Your task to perform on an android device: check data usage Image 0: 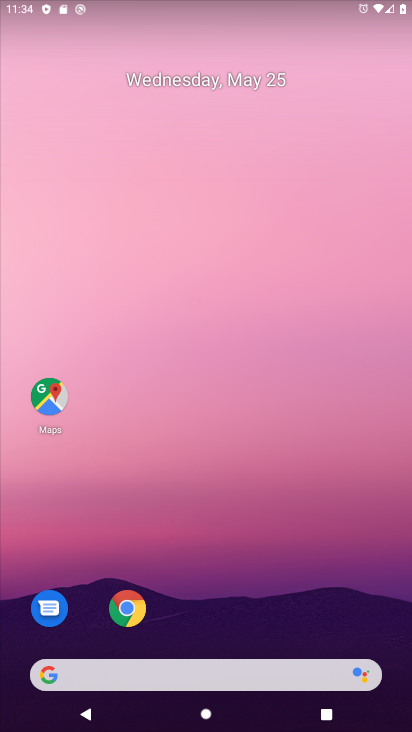
Step 0: drag from (218, 728) to (228, 160)
Your task to perform on an android device: check data usage Image 1: 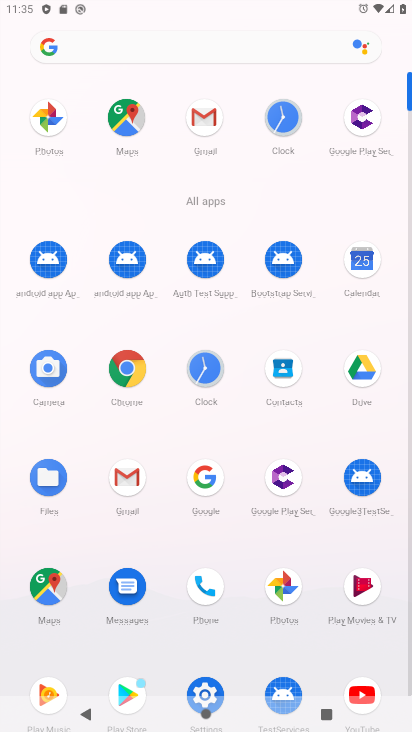
Step 1: click (208, 690)
Your task to perform on an android device: check data usage Image 2: 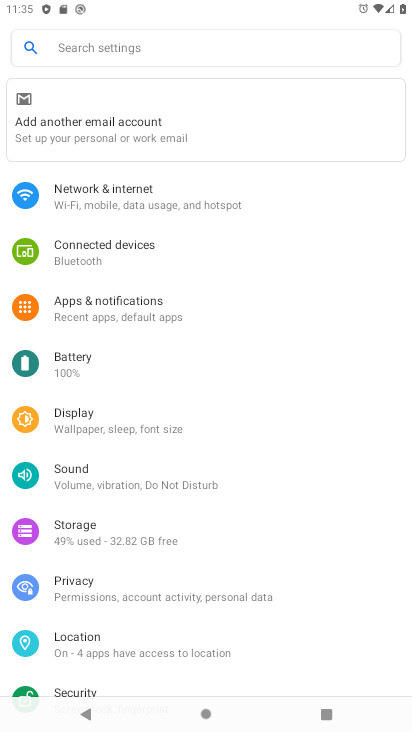
Step 2: click (127, 208)
Your task to perform on an android device: check data usage Image 3: 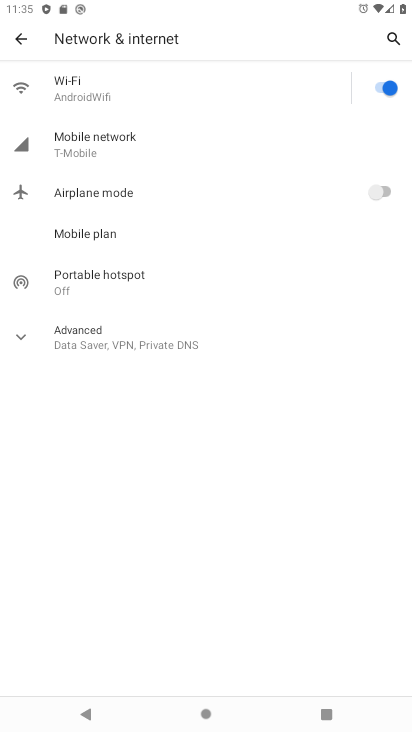
Step 3: click (89, 145)
Your task to perform on an android device: check data usage Image 4: 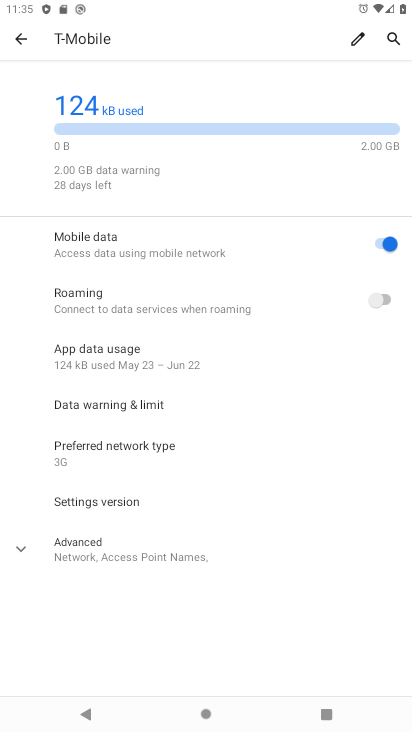
Step 4: click (87, 355)
Your task to perform on an android device: check data usage Image 5: 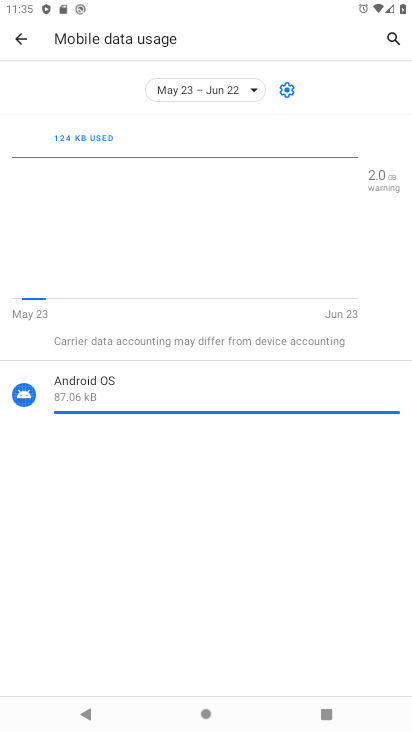
Step 5: task complete